Your task to perform on an android device: What's the weather today? Image 0: 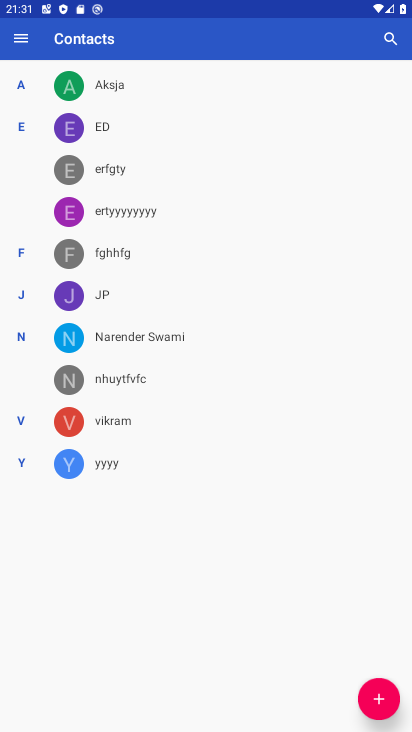
Step 0: press home button
Your task to perform on an android device: What's the weather today? Image 1: 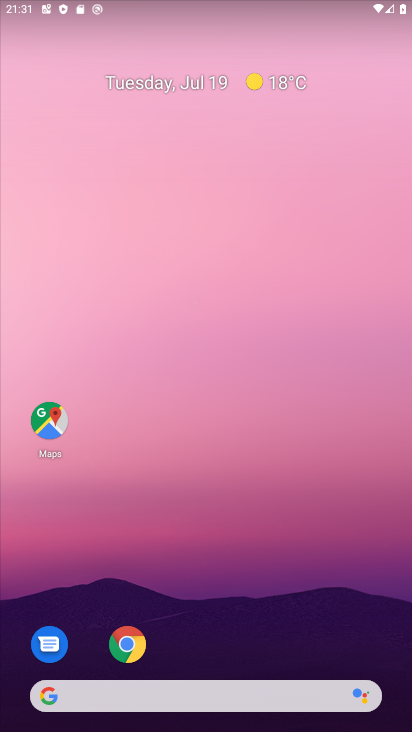
Step 1: drag from (223, 724) to (200, 78)
Your task to perform on an android device: What's the weather today? Image 2: 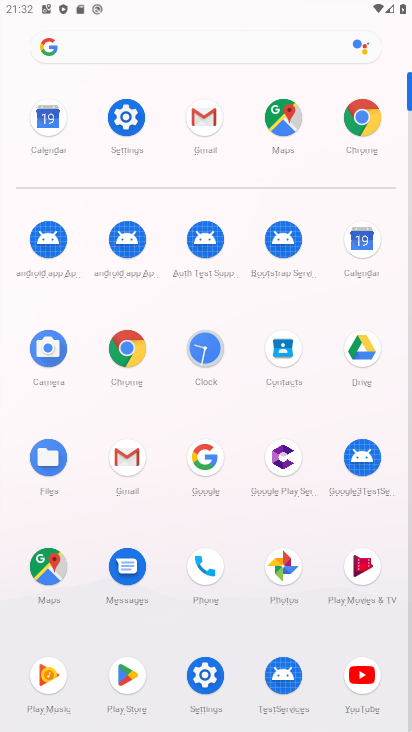
Step 2: click (196, 459)
Your task to perform on an android device: What's the weather today? Image 3: 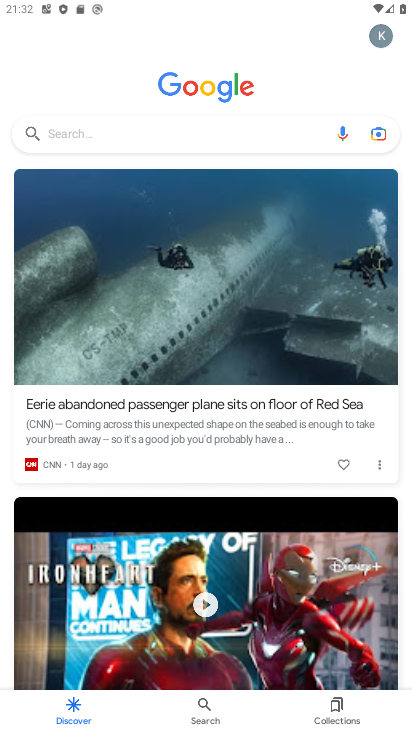
Step 3: click (228, 140)
Your task to perform on an android device: What's the weather today? Image 4: 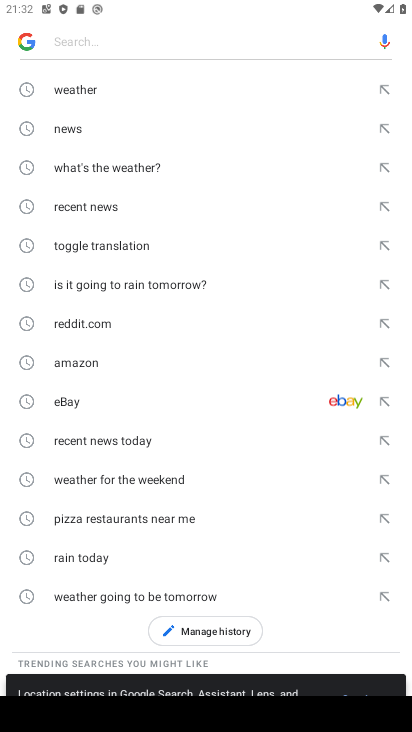
Step 4: click (67, 92)
Your task to perform on an android device: What's the weather today? Image 5: 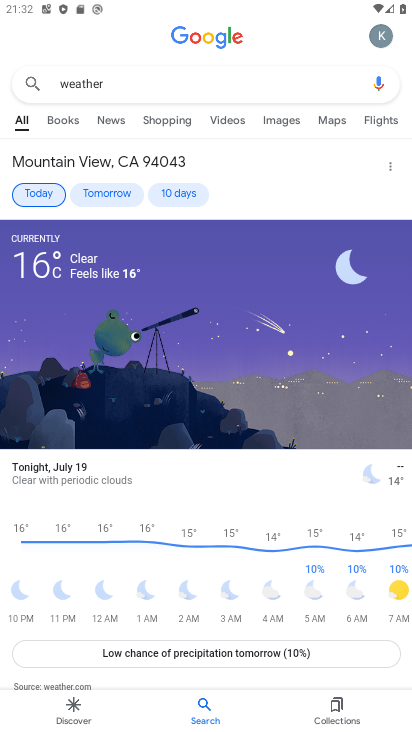
Step 5: click (36, 187)
Your task to perform on an android device: What's the weather today? Image 6: 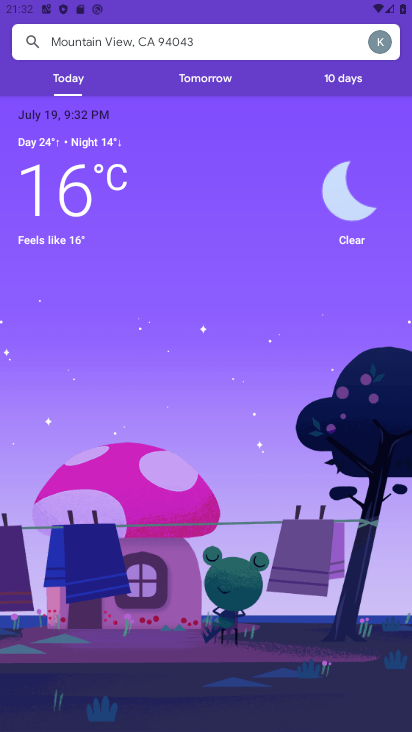
Step 6: task complete